Your task to perform on an android device: toggle airplane mode Image 0: 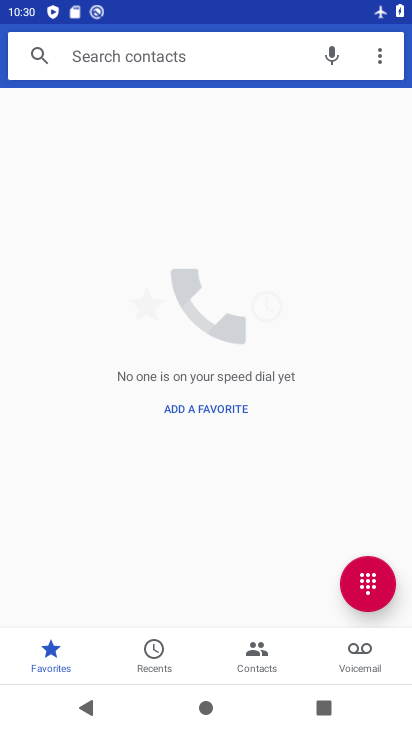
Step 0: drag from (308, 557) to (322, 217)
Your task to perform on an android device: toggle airplane mode Image 1: 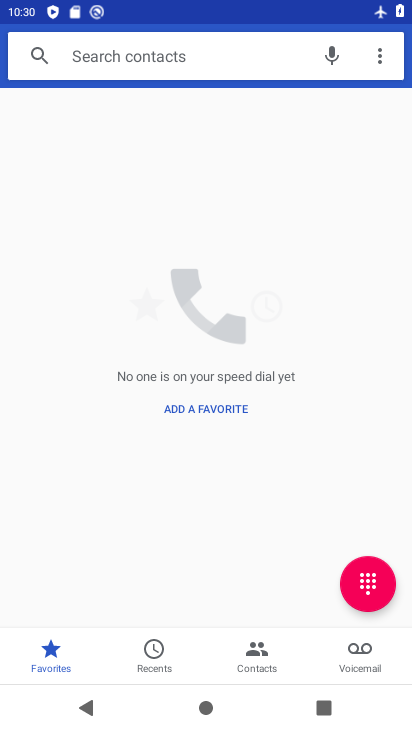
Step 1: press home button
Your task to perform on an android device: toggle airplane mode Image 2: 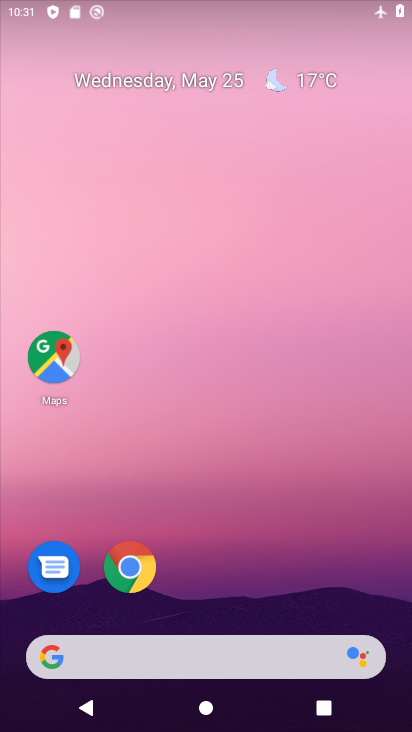
Step 2: drag from (249, 6) to (263, 364)
Your task to perform on an android device: toggle airplane mode Image 3: 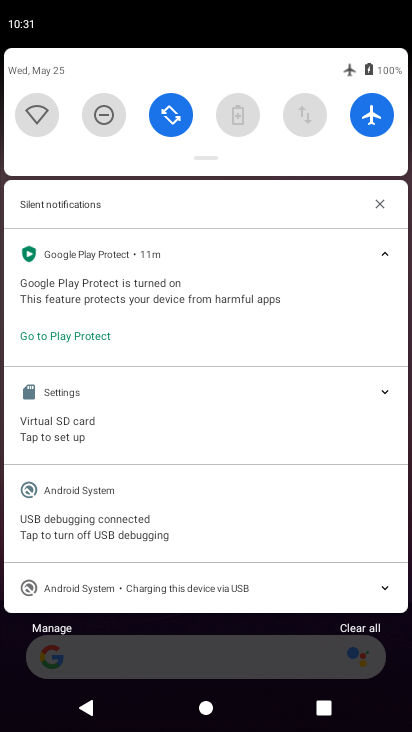
Step 3: click (380, 117)
Your task to perform on an android device: toggle airplane mode Image 4: 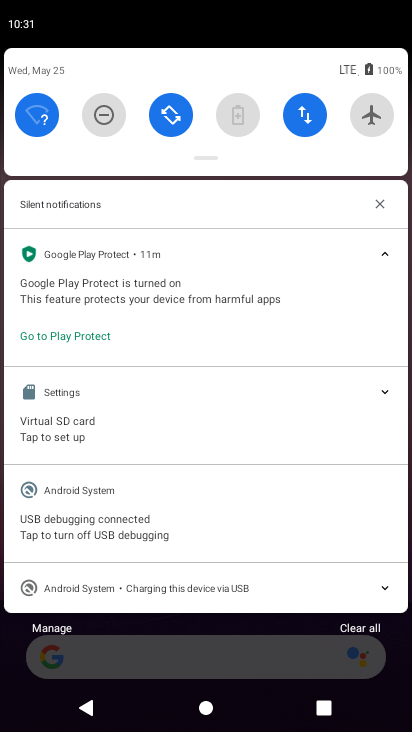
Step 4: task complete